Your task to perform on an android device: Show me recent news Image 0: 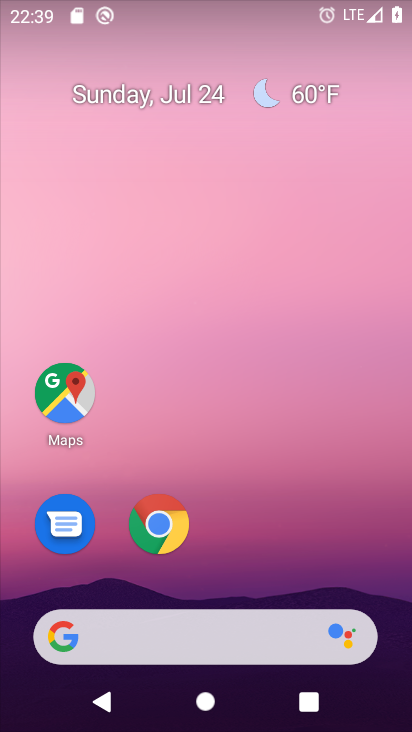
Step 0: click (231, 648)
Your task to perform on an android device: Show me recent news Image 1: 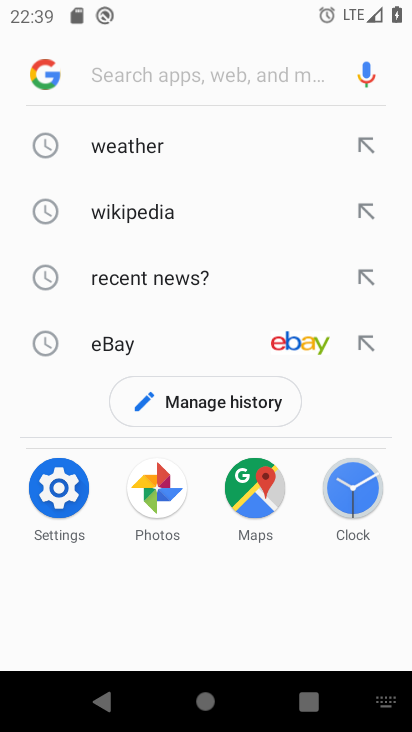
Step 1: click (148, 274)
Your task to perform on an android device: Show me recent news Image 2: 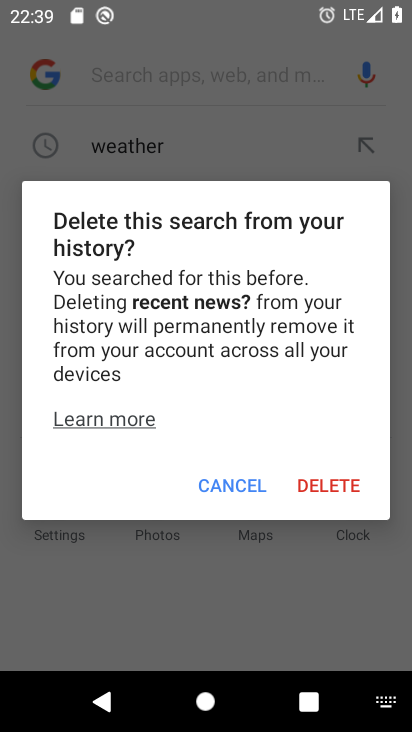
Step 2: click (233, 478)
Your task to perform on an android device: Show me recent news Image 3: 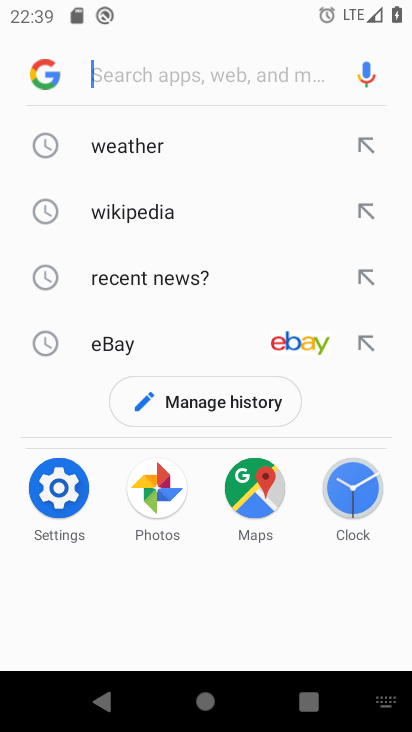
Step 3: click (160, 277)
Your task to perform on an android device: Show me recent news Image 4: 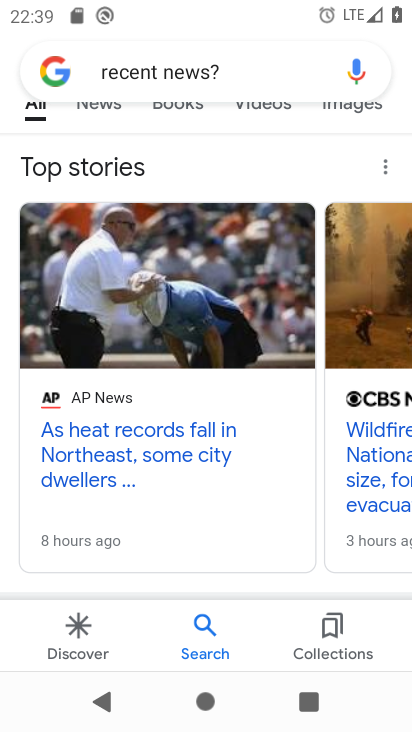
Step 4: click (178, 439)
Your task to perform on an android device: Show me recent news Image 5: 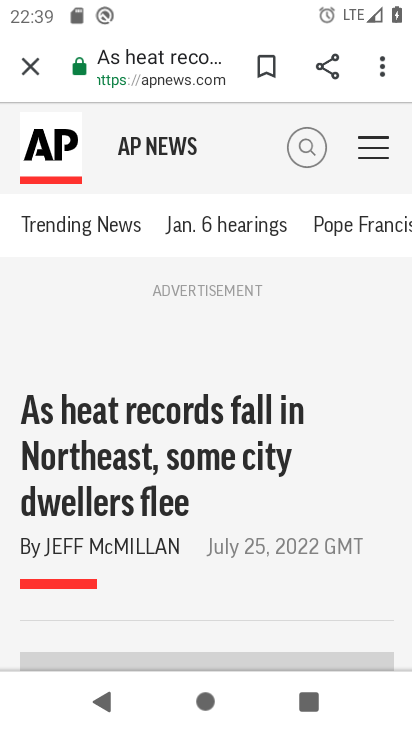
Step 5: task complete